Your task to perform on an android device: toggle javascript in the chrome app Image 0: 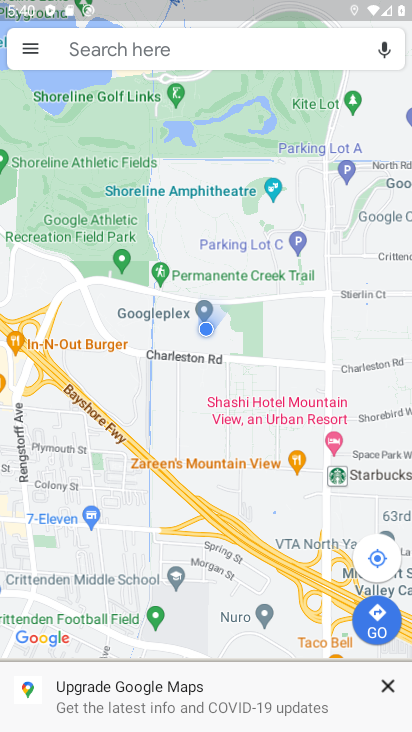
Step 0: press back button
Your task to perform on an android device: toggle javascript in the chrome app Image 1: 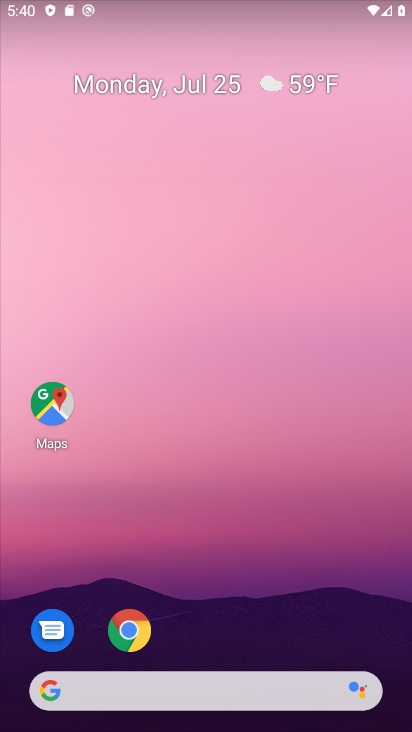
Step 1: click (132, 610)
Your task to perform on an android device: toggle javascript in the chrome app Image 2: 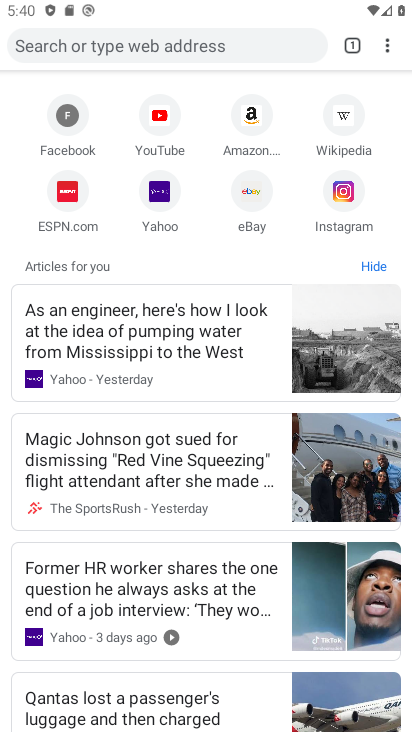
Step 2: click (386, 44)
Your task to perform on an android device: toggle javascript in the chrome app Image 3: 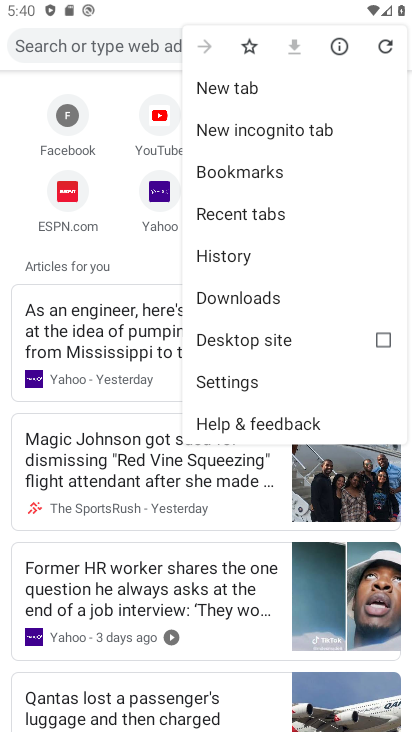
Step 3: click (220, 379)
Your task to perform on an android device: toggle javascript in the chrome app Image 4: 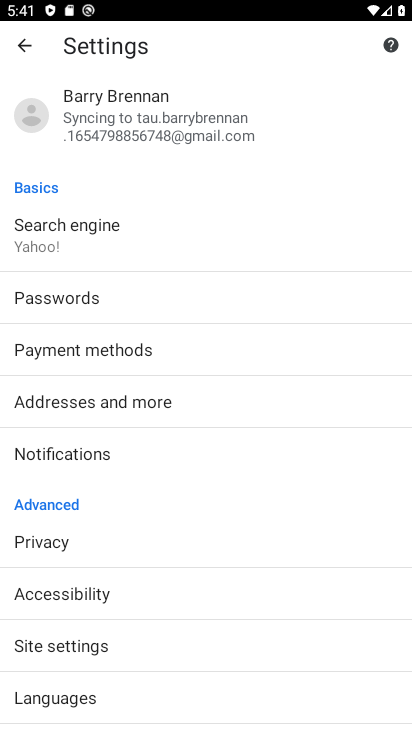
Step 4: click (45, 658)
Your task to perform on an android device: toggle javascript in the chrome app Image 5: 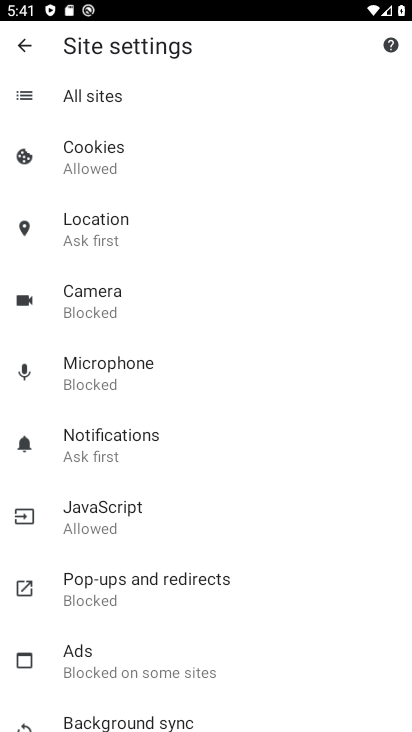
Step 5: click (123, 524)
Your task to perform on an android device: toggle javascript in the chrome app Image 6: 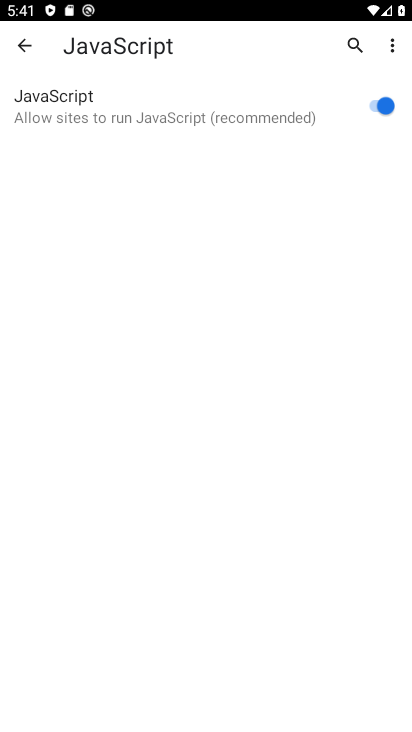
Step 6: click (369, 104)
Your task to perform on an android device: toggle javascript in the chrome app Image 7: 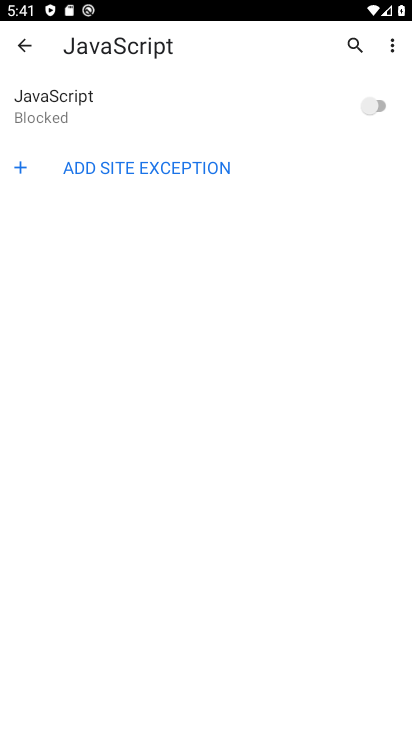
Step 7: task complete